Your task to perform on an android device: toggle priority inbox in the gmail app Image 0: 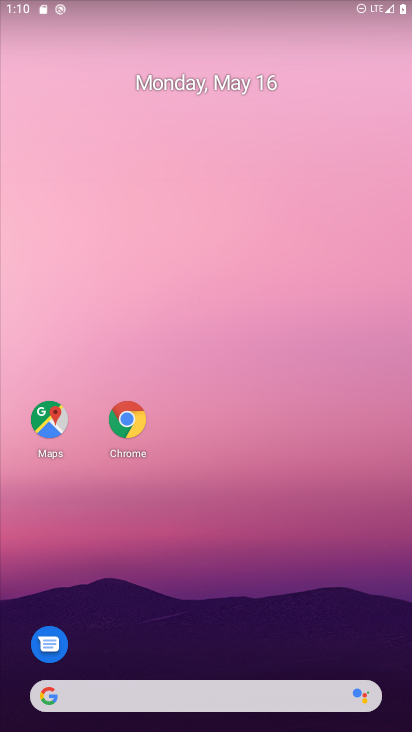
Step 0: drag from (160, 657) to (89, 133)
Your task to perform on an android device: toggle priority inbox in the gmail app Image 1: 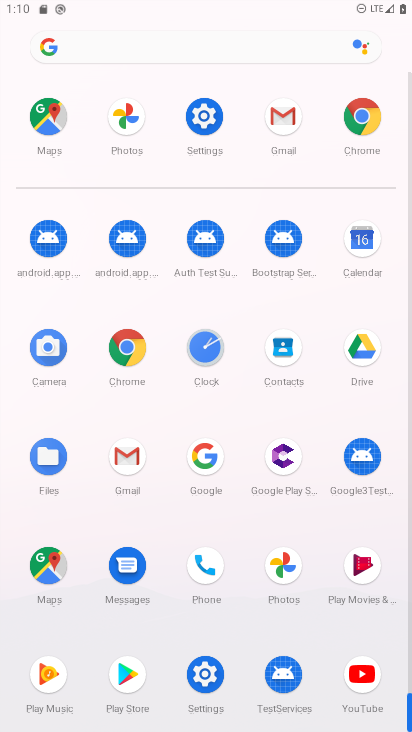
Step 1: click (122, 456)
Your task to perform on an android device: toggle priority inbox in the gmail app Image 2: 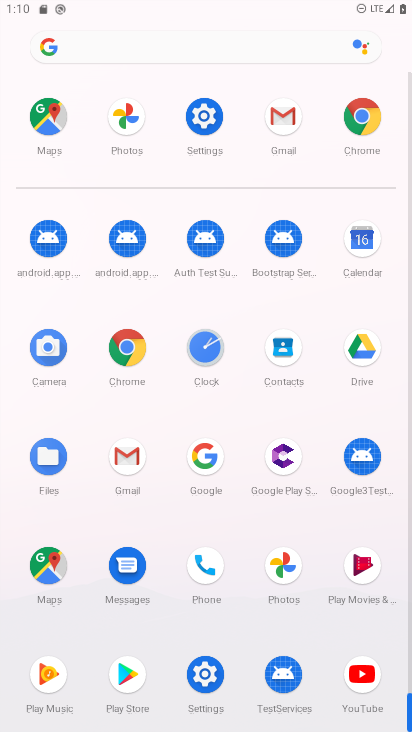
Step 2: click (122, 456)
Your task to perform on an android device: toggle priority inbox in the gmail app Image 3: 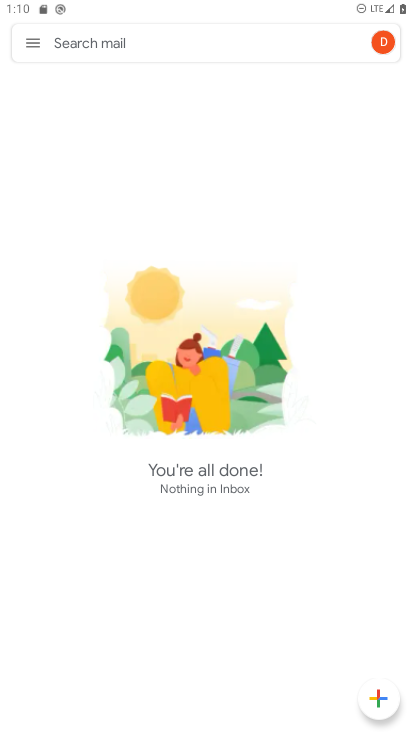
Step 3: drag from (211, 507) to (215, 55)
Your task to perform on an android device: toggle priority inbox in the gmail app Image 4: 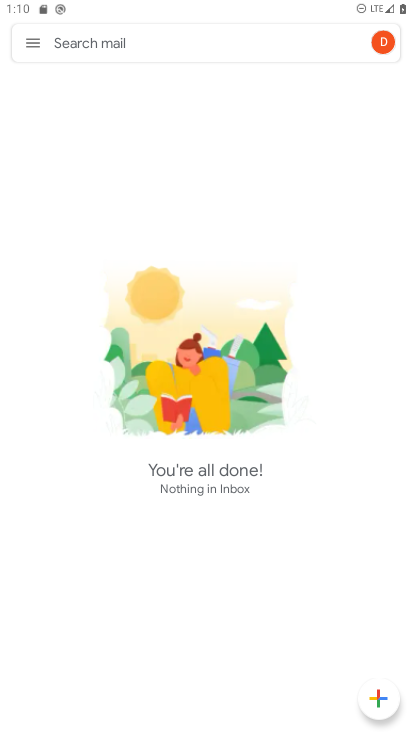
Step 4: click (311, 603)
Your task to perform on an android device: toggle priority inbox in the gmail app Image 5: 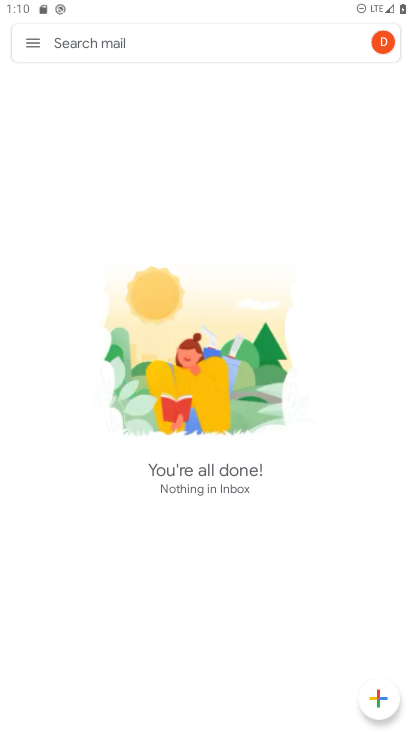
Step 5: click (42, 44)
Your task to perform on an android device: toggle priority inbox in the gmail app Image 6: 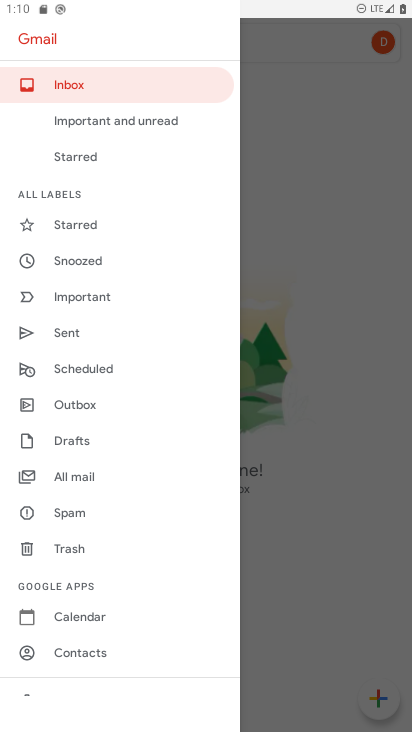
Step 6: drag from (101, 616) to (142, 151)
Your task to perform on an android device: toggle priority inbox in the gmail app Image 7: 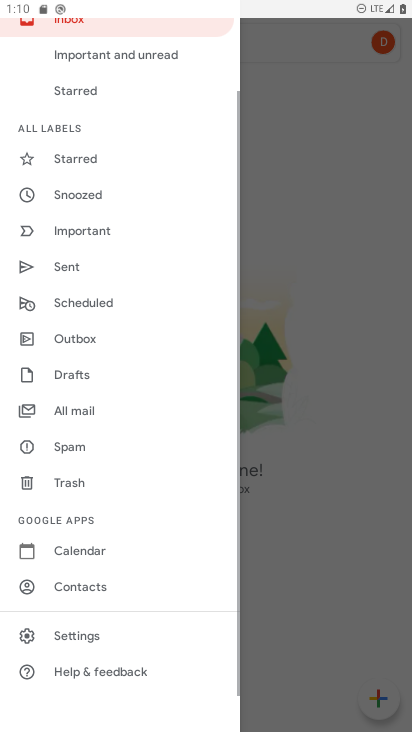
Step 7: click (83, 649)
Your task to perform on an android device: toggle priority inbox in the gmail app Image 8: 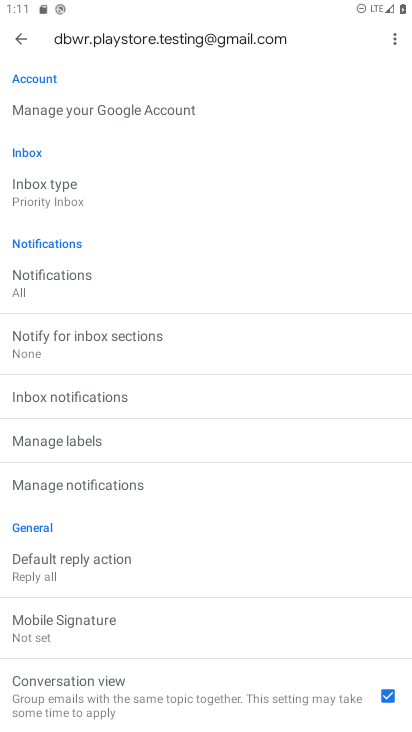
Step 8: click (94, 196)
Your task to perform on an android device: toggle priority inbox in the gmail app Image 9: 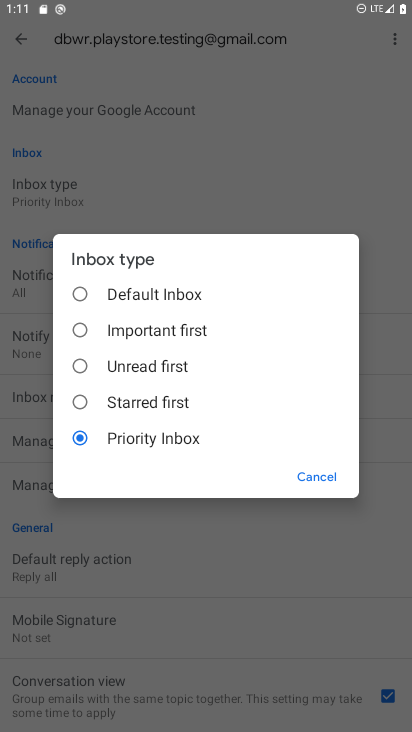
Step 9: click (143, 438)
Your task to perform on an android device: toggle priority inbox in the gmail app Image 10: 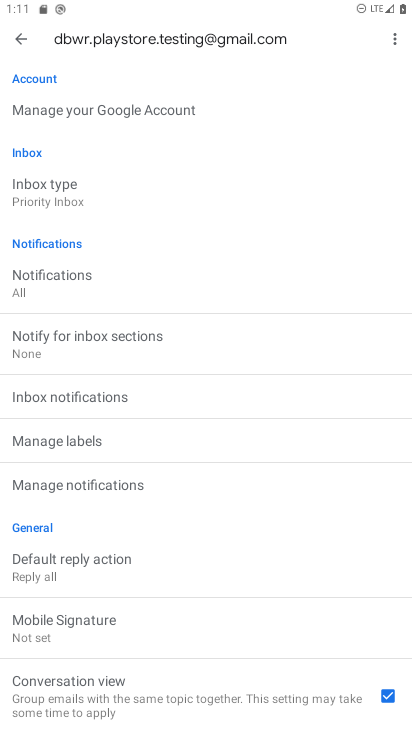
Step 10: click (105, 214)
Your task to perform on an android device: toggle priority inbox in the gmail app Image 11: 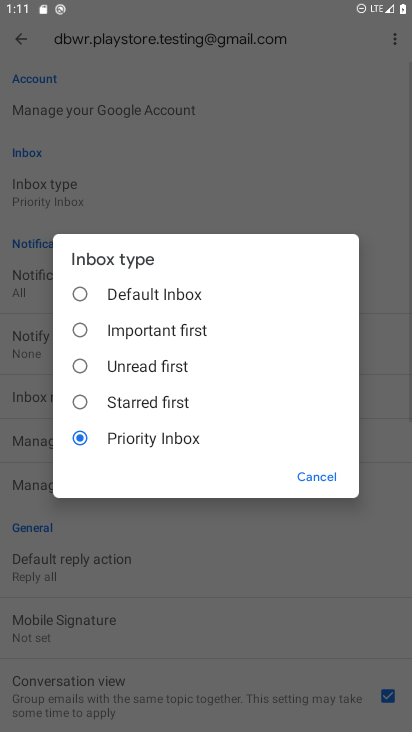
Step 11: click (131, 309)
Your task to perform on an android device: toggle priority inbox in the gmail app Image 12: 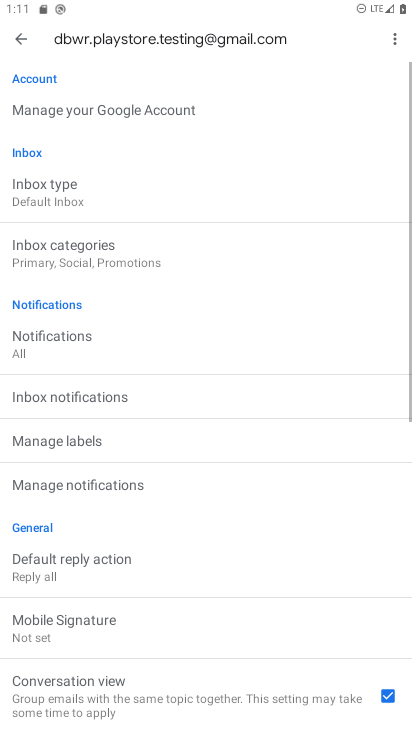
Step 12: task complete